Your task to perform on an android device: Go to Yahoo.com Image 0: 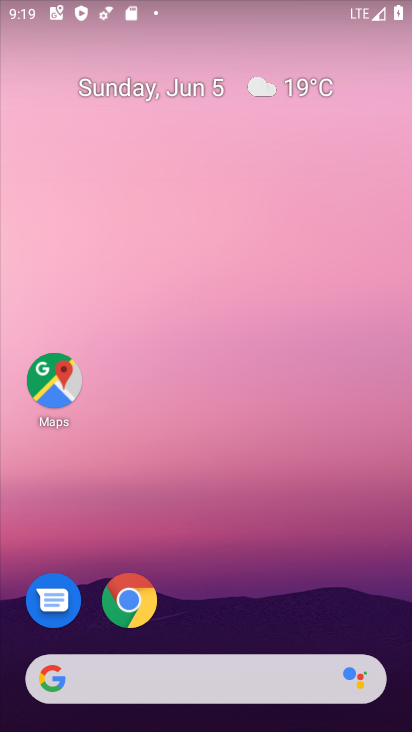
Step 0: click (136, 610)
Your task to perform on an android device: Go to Yahoo.com Image 1: 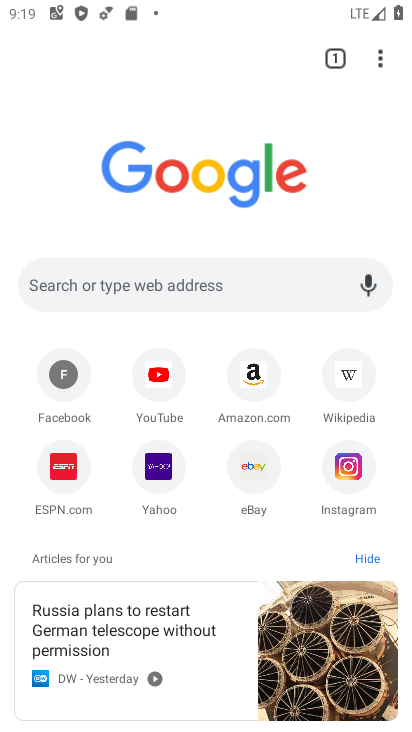
Step 1: click (159, 496)
Your task to perform on an android device: Go to Yahoo.com Image 2: 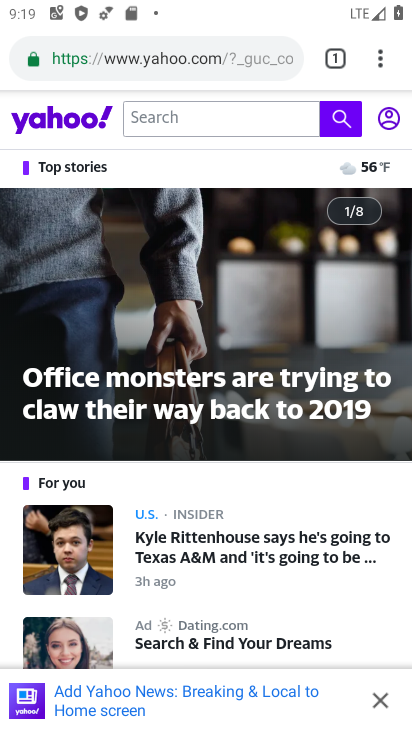
Step 2: task complete